Your task to perform on an android device: open app "Duolingo: language lessons" (install if not already installed) and go to login screen Image 0: 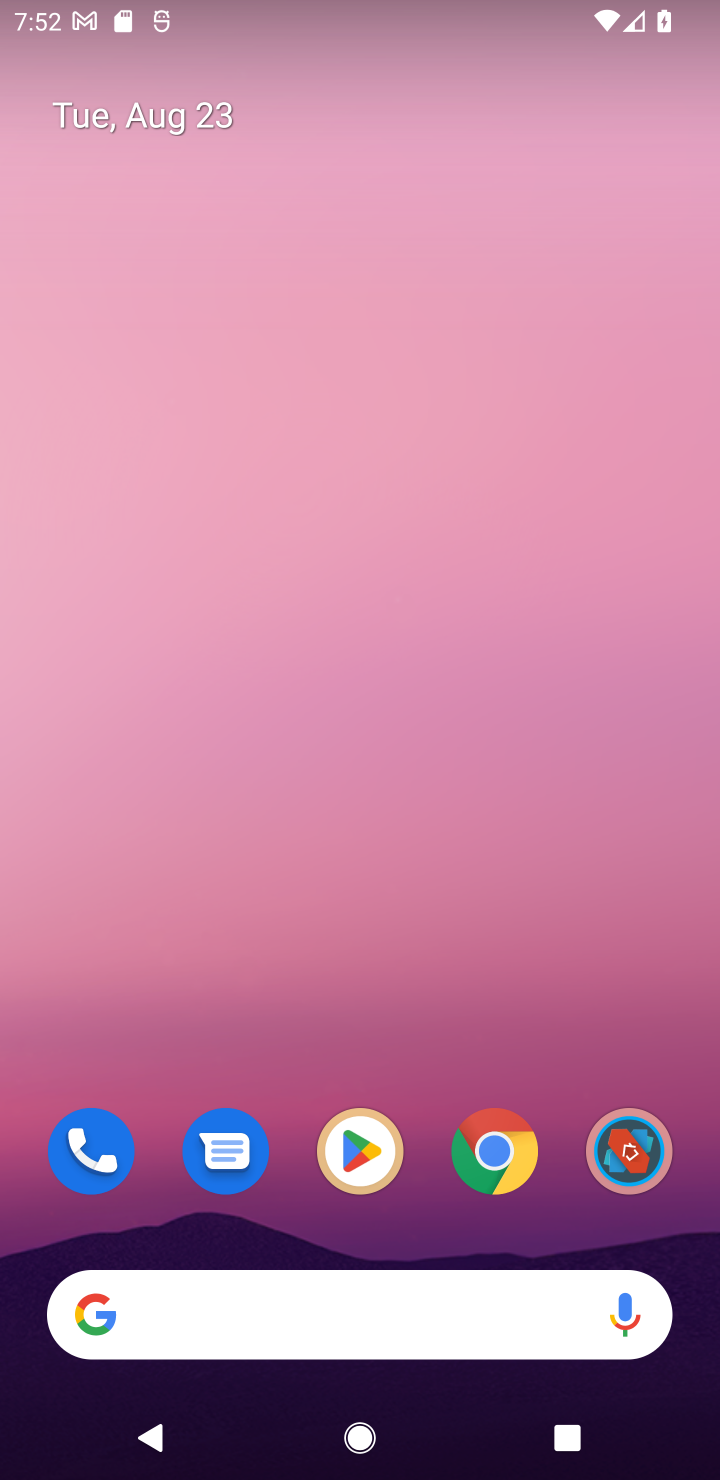
Step 0: click (337, 1166)
Your task to perform on an android device: open app "Duolingo: language lessons" (install if not already installed) and go to login screen Image 1: 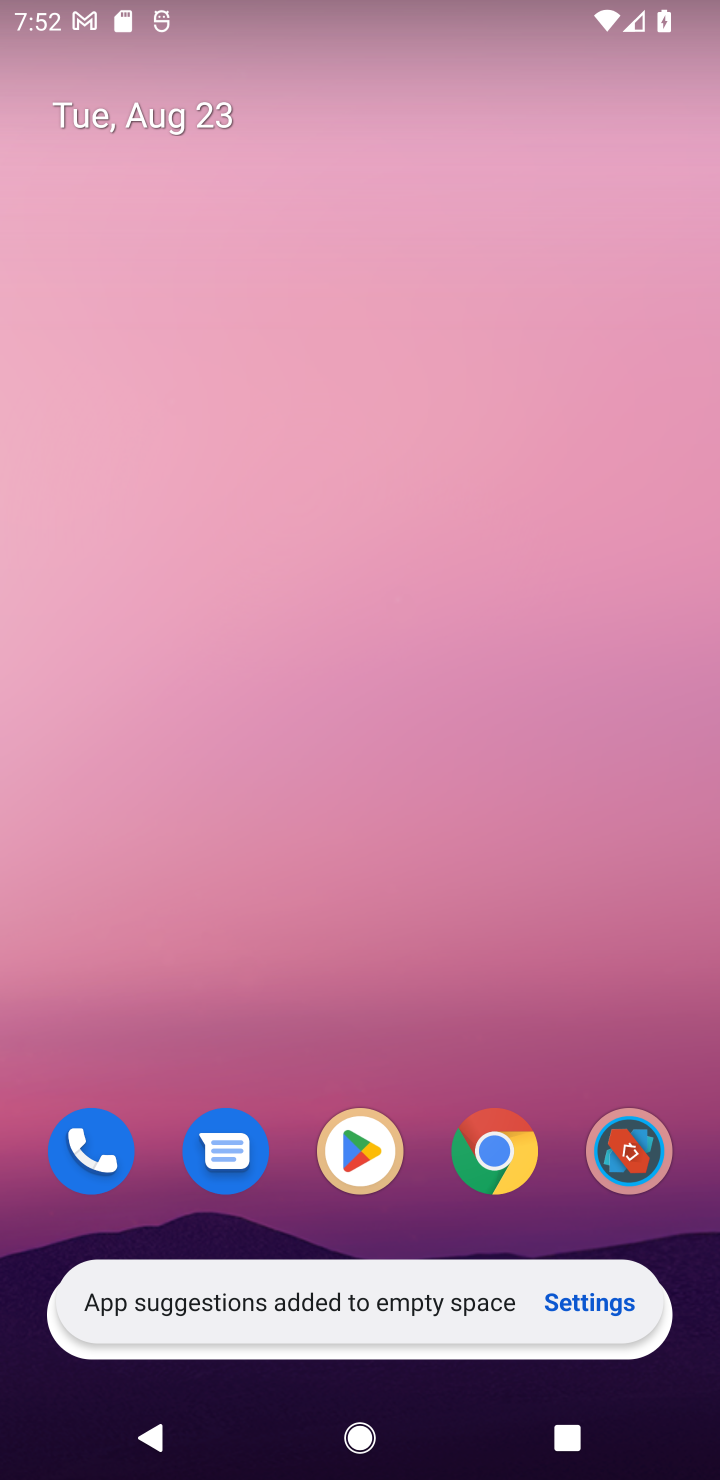
Step 1: click (337, 1166)
Your task to perform on an android device: open app "Duolingo: language lessons" (install if not already installed) and go to login screen Image 2: 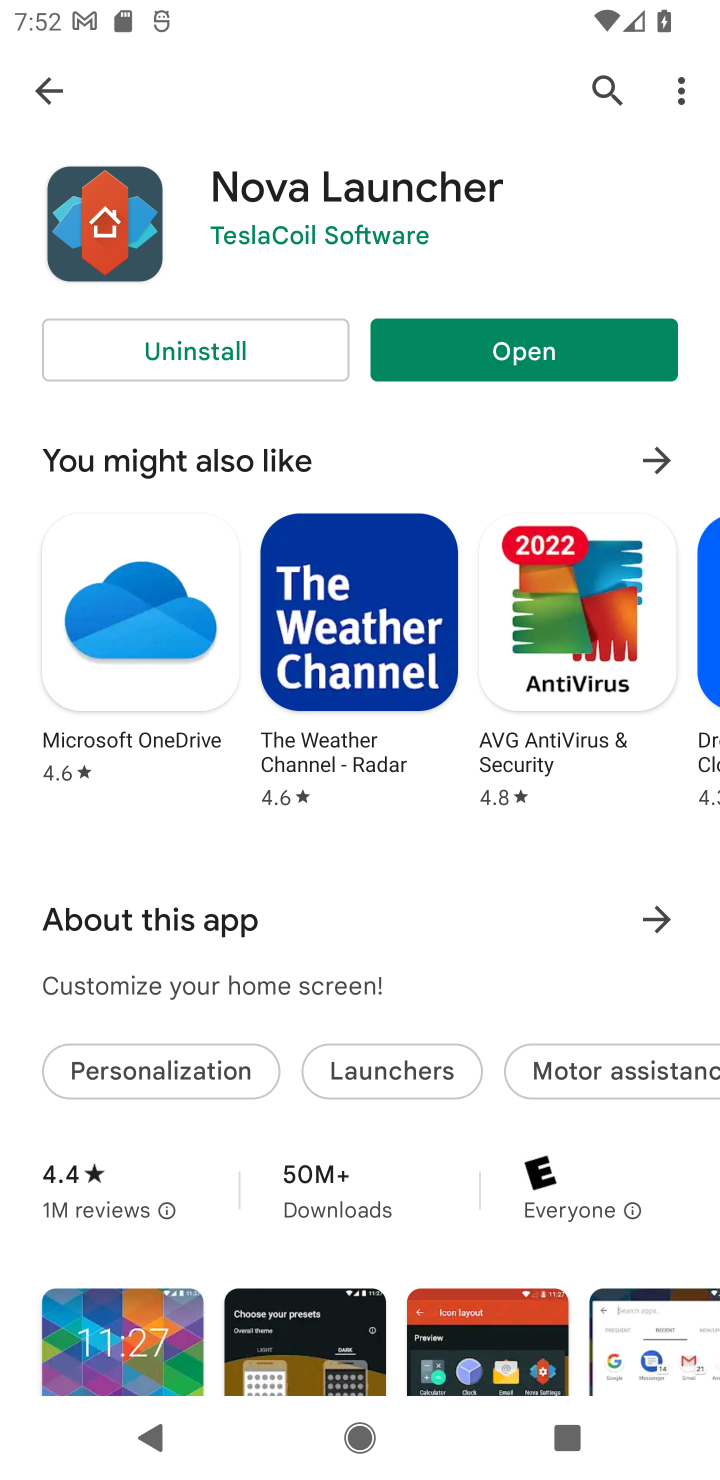
Step 2: click (318, 775)
Your task to perform on an android device: open app "Duolingo: language lessons" (install if not already installed) and go to login screen Image 3: 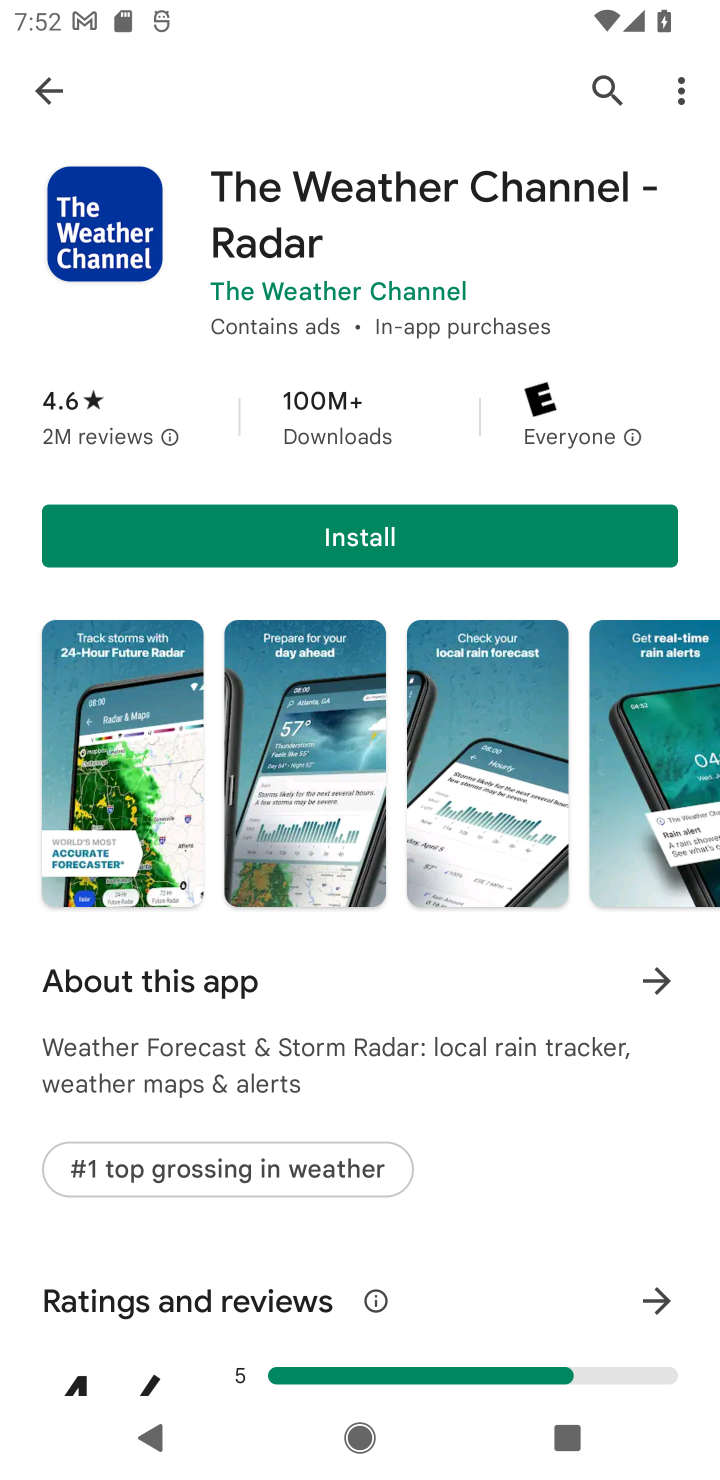
Step 3: click (42, 71)
Your task to perform on an android device: open app "Duolingo: language lessons" (install if not already installed) and go to login screen Image 4: 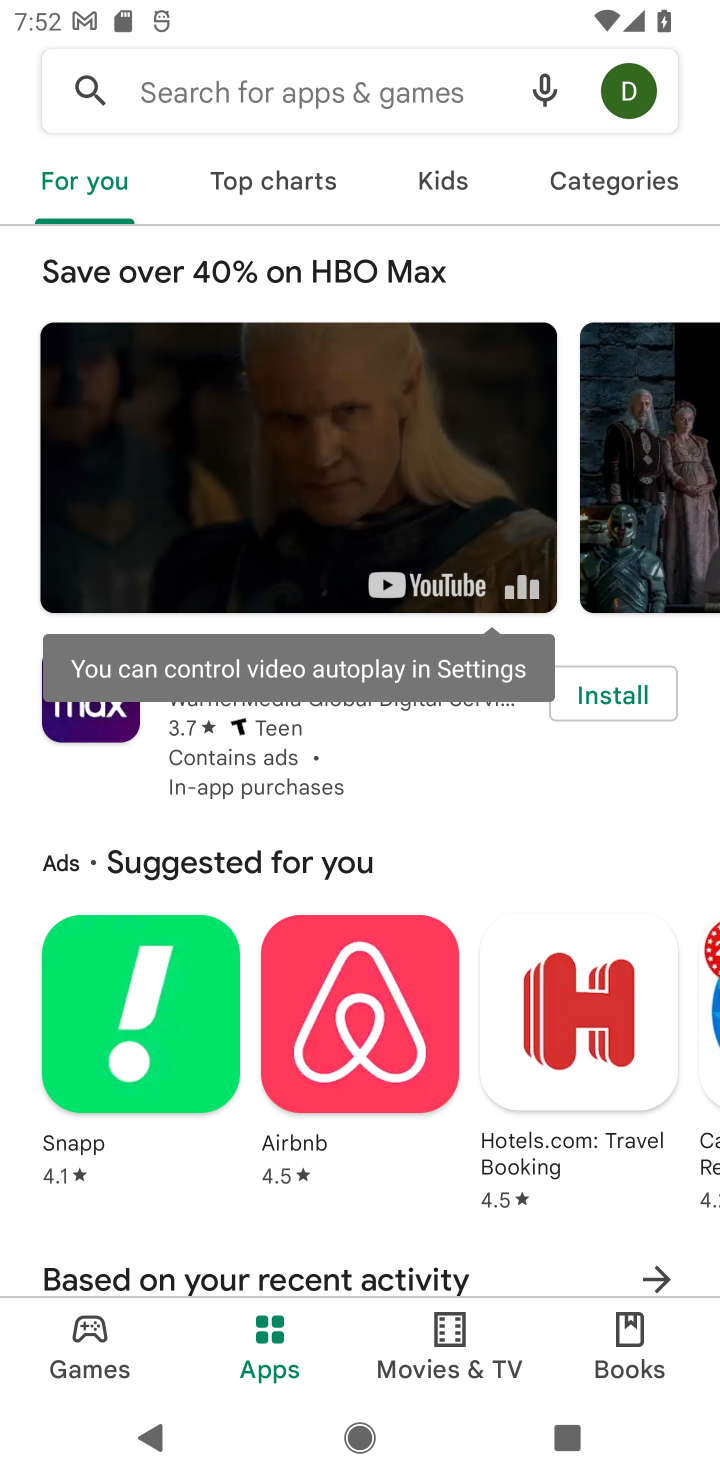
Step 4: click (249, 85)
Your task to perform on an android device: open app "Duolingo: language lessons" (install if not already installed) and go to login screen Image 5: 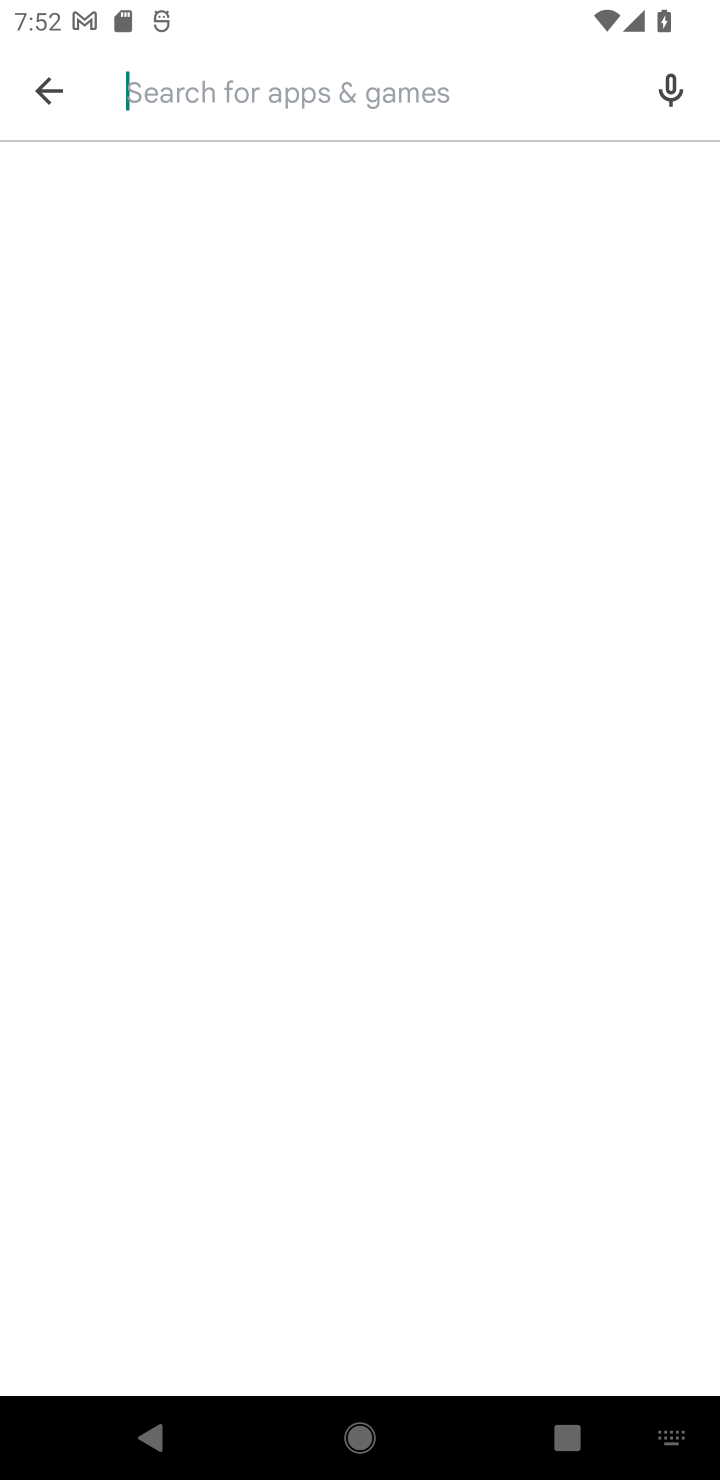
Step 5: type "Duolingo: language lessons"
Your task to perform on an android device: open app "Duolingo: language lessons" (install if not already installed) and go to login screen Image 6: 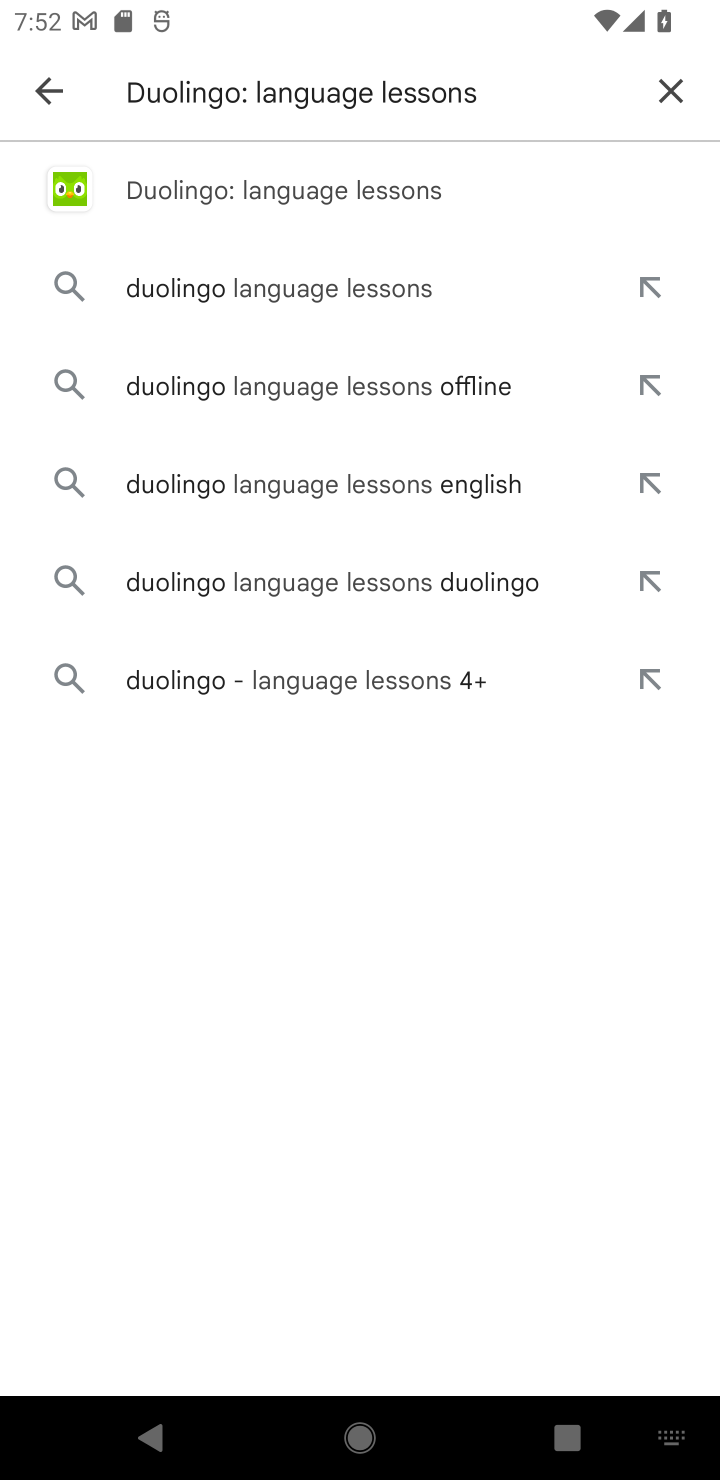
Step 6: click (187, 194)
Your task to perform on an android device: open app "Duolingo: language lessons" (install if not already installed) and go to login screen Image 7: 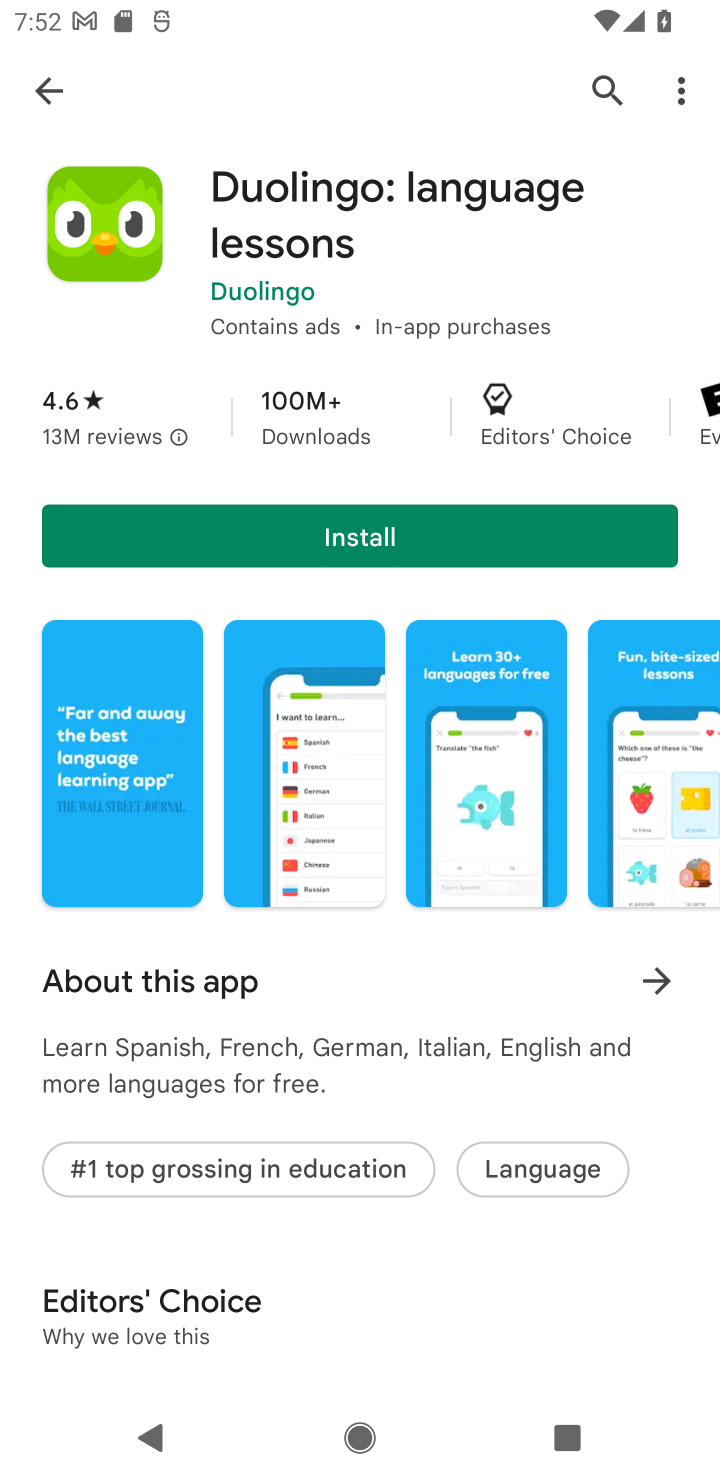
Step 7: click (346, 536)
Your task to perform on an android device: open app "Duolingo: language lessons" (install if not already installed) and go to login screen Image 8: 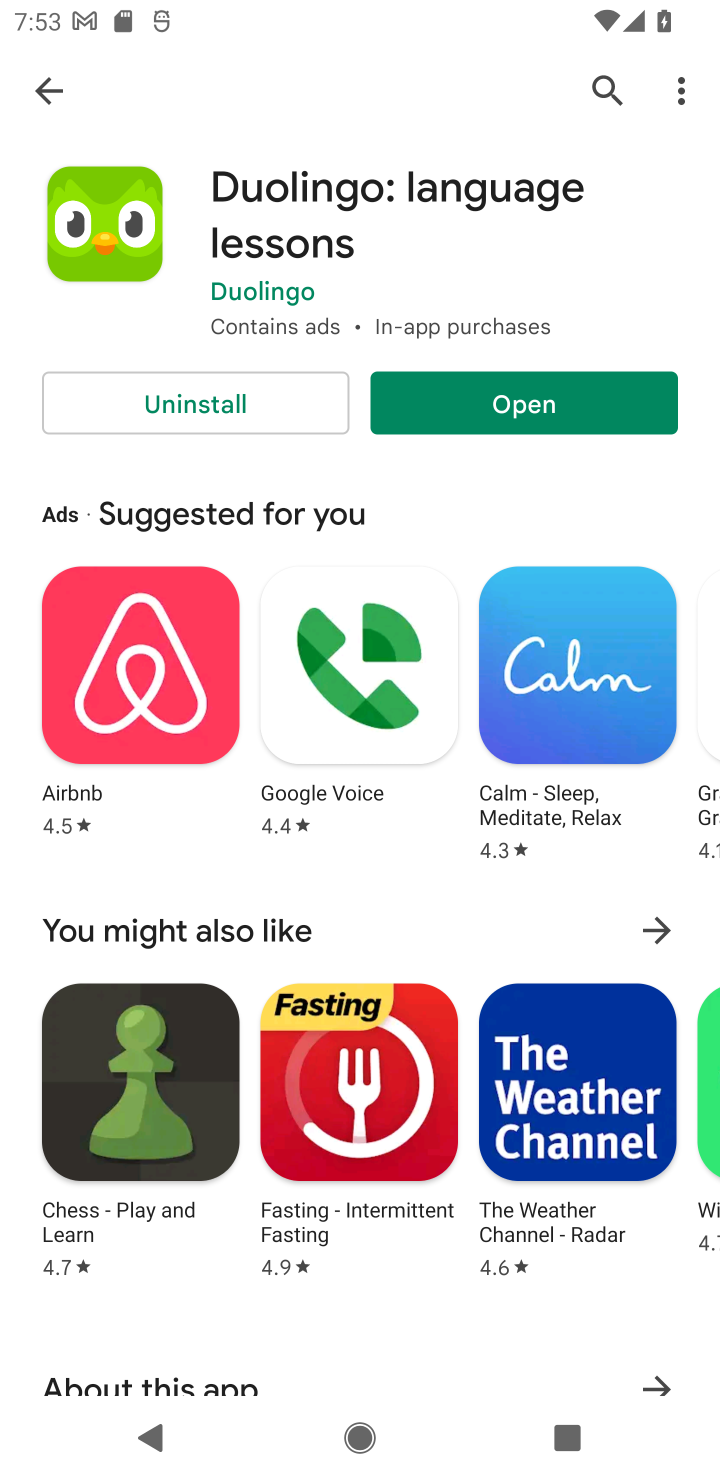
Step 8: click (526, 390)
Your task to perform on an android device: open app "Duolingo: language lessons" (install if not already installed) and go to login screen Image 9: 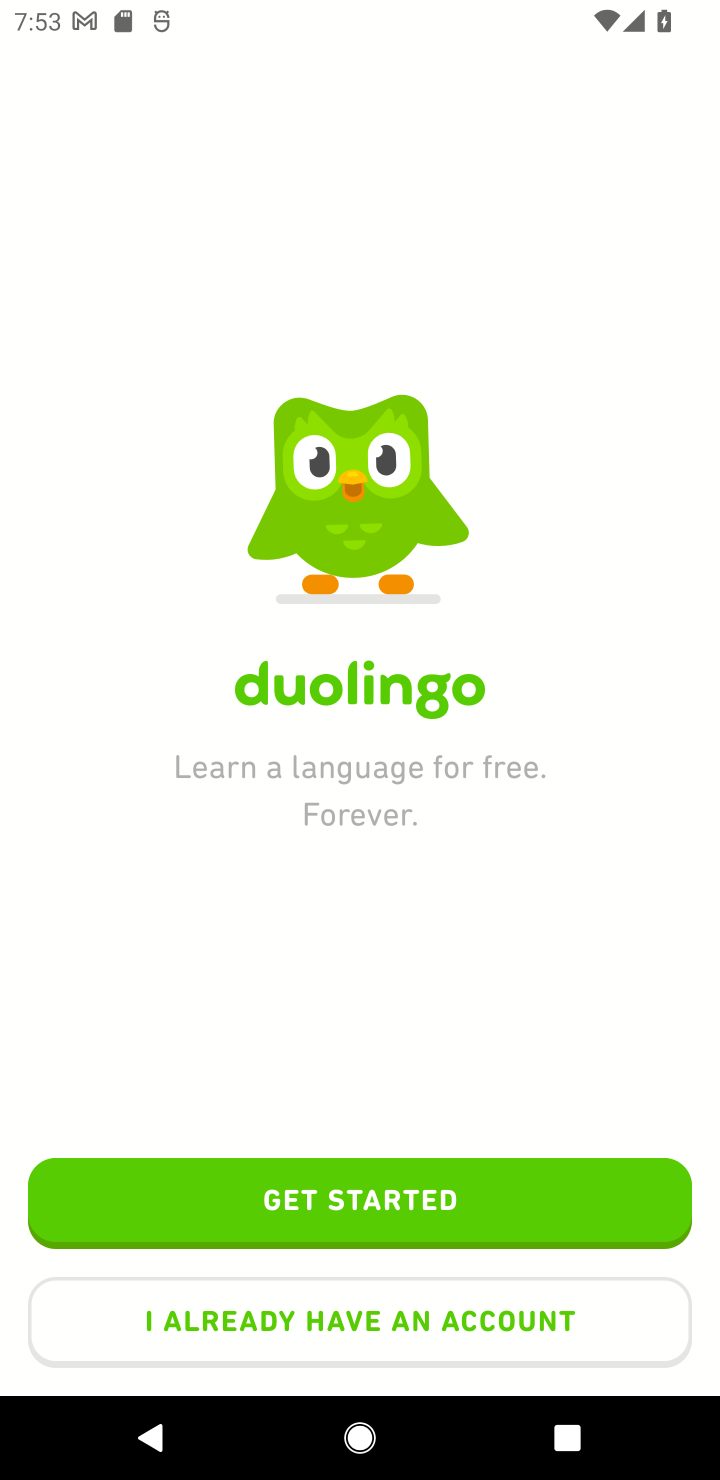
Step 9: task complete